Your task to perform on an android device: Open sound settings Image 0: 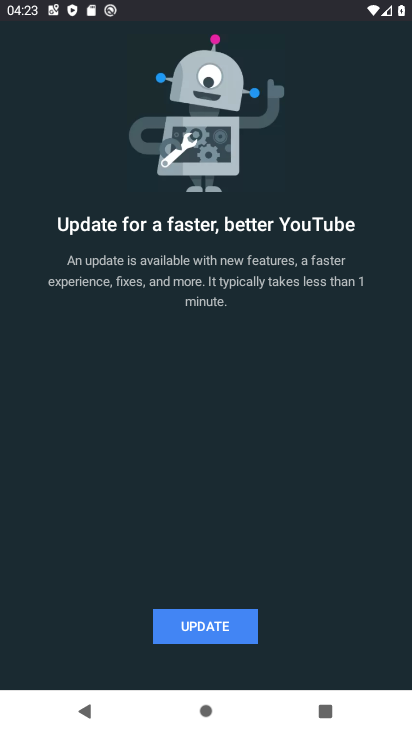
Step 0: press back button
Your task to perform on an android device: Open sound settings Image 1: 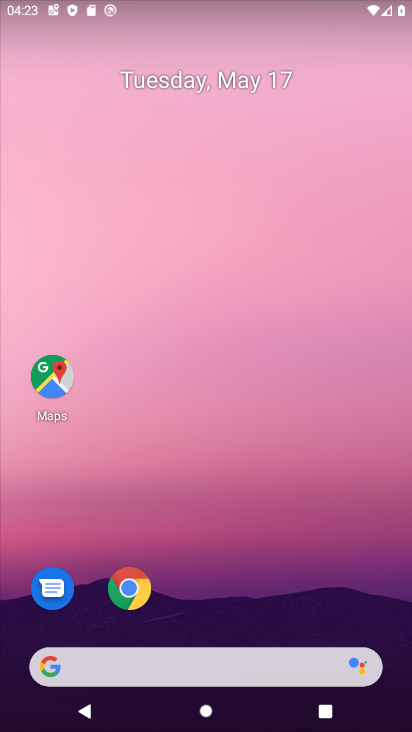
Step 1: drag from (283, 567) to (198, 59)
Your task to perform on an android device: Open sound settings Image 2: 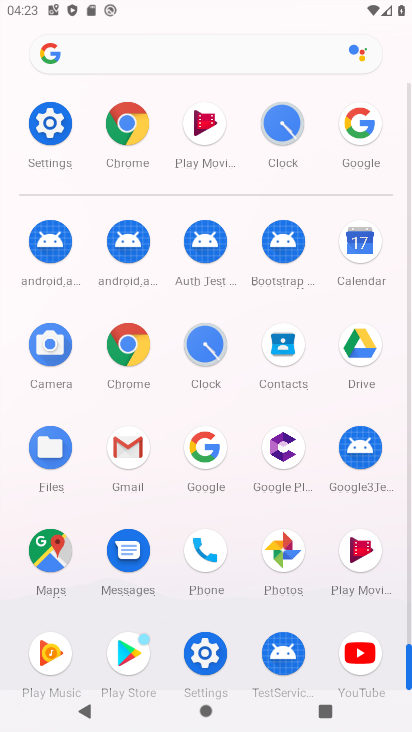
Step 2: click (49, 122)
Your task to perform on an android device: Open sound settings Image 3: 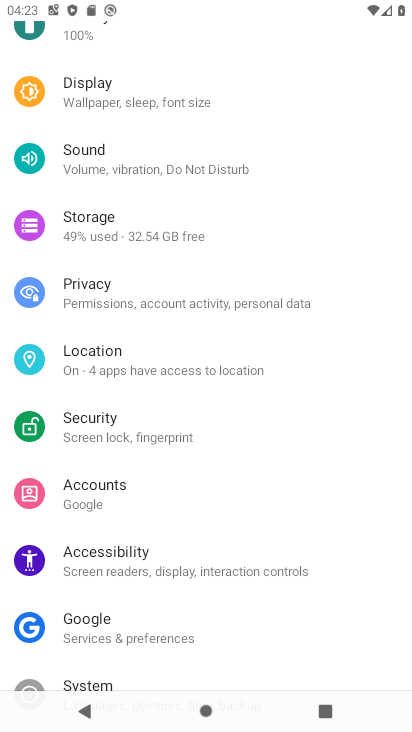
Step 3: drag from (197, 198) to (194, 317)
Your task to perform on an android device: Open sound settings Image 4: 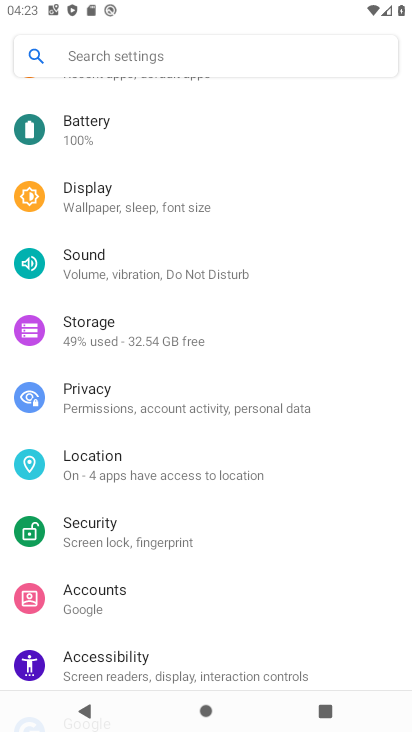
Step 4: click (172, 269)
Your task to perform on an android device: Open sound settings Image 5: 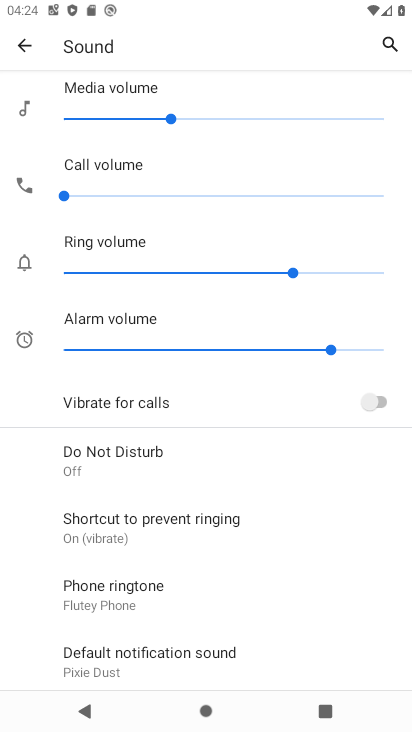
Step 5: task complete